Your task to perform on an android device: open the mobile data screen to see how much data has been used Image 0: 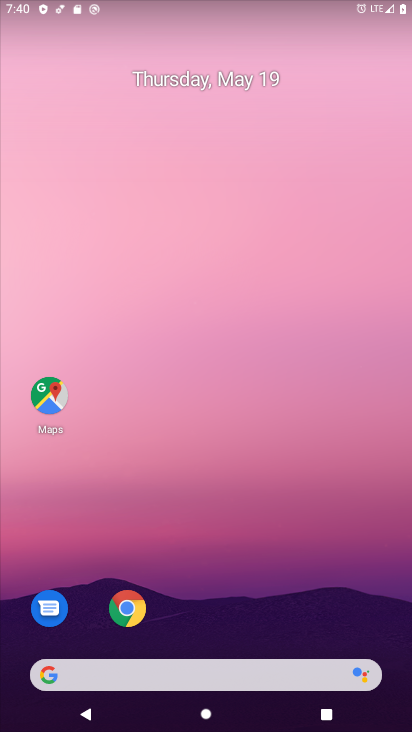
Step 0: drag from (393, 696) to (315, 133)
Your task to perform on an android device: open the mobile data screen to see how much data has been used Image 1: 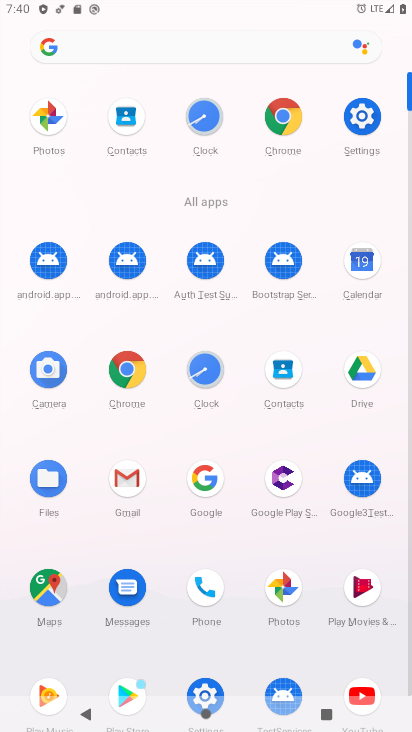
Step 1: click (368, 117)
Your task to perform on an android device: open the mobile data screen to see how much data has been used Image 2: 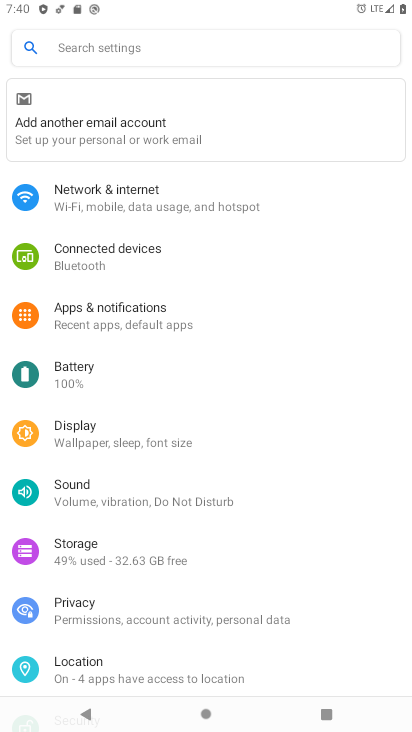
Step 2: click (121, 202)
Your task to perform on an android device: open the mobile data screen to see how much data has been used Image 3: 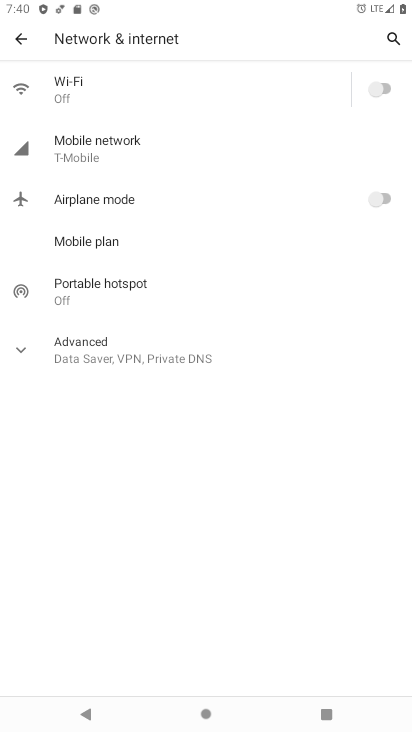
Step 3: click (64, 149)
Your task to perform on an android device: open the mobile data screen to see how much data has been used Image 4: 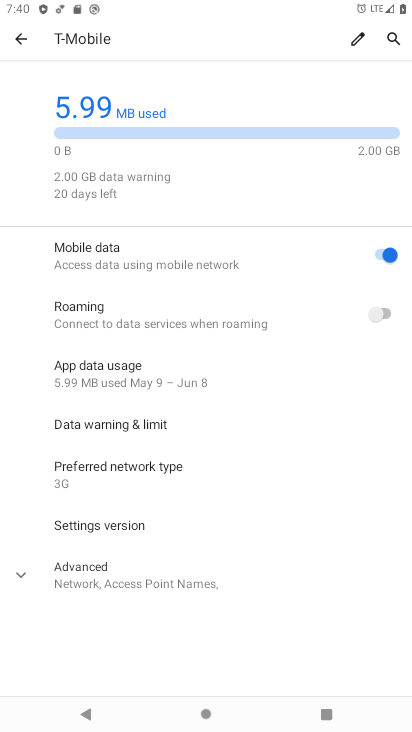
Step 4: task complete